Your task to perform on an android device: turn off data saver in the chrome app Image 0: 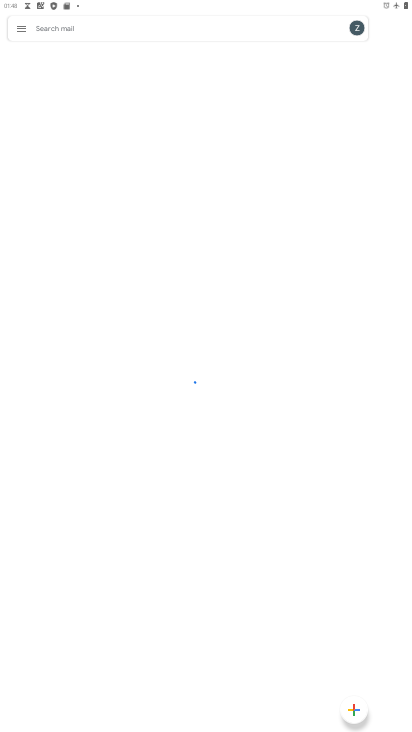
Step 0: press home button
Your task to perform on an android device: turn off data saver in the chrome app Image 1: 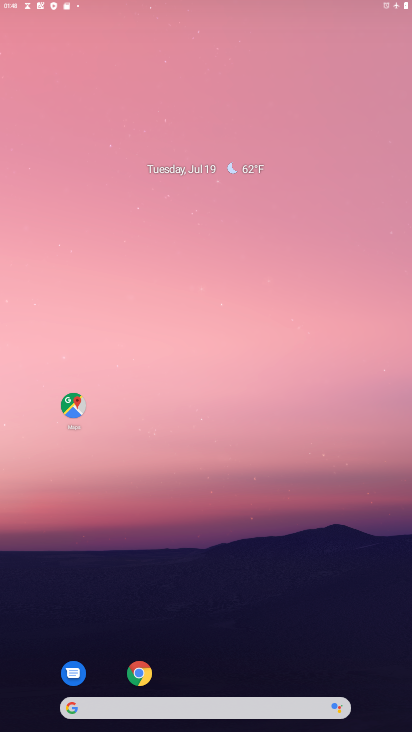
Step 1: drag from (132, 629) to (140, 169)
Your task to perform on an android device: turn off data saver in the chrome app Image 2: 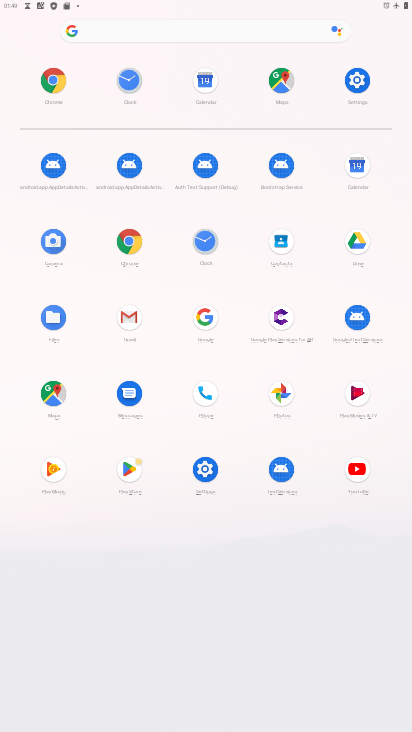
Step 2: click (46, 75)
Your task to perform on an android device: turn off data saver in the chrome app Image 3: 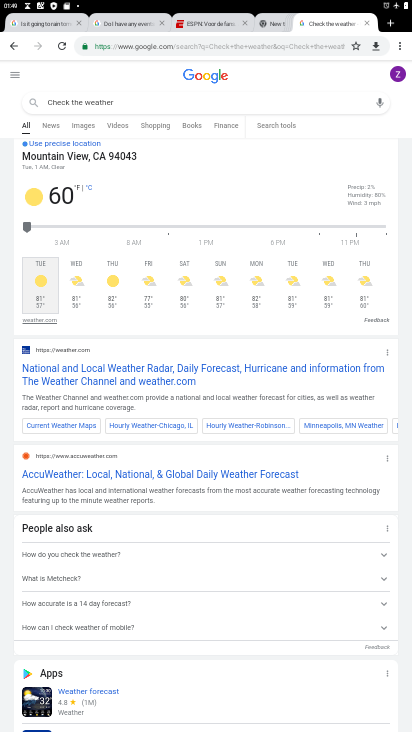
Step 3: click (394, 44)
Your task to perform on an android device: turn off data saver in the chrome app Image 4: 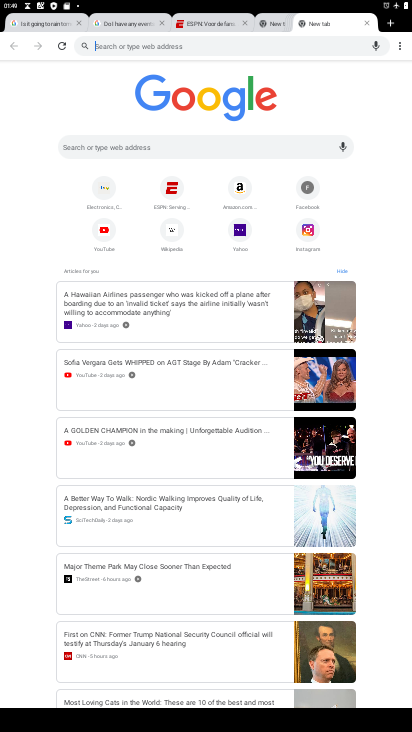
Step 4: click (395, 42)
Your task to perform on an android device: turn off data saver in the chrome app Image 5: 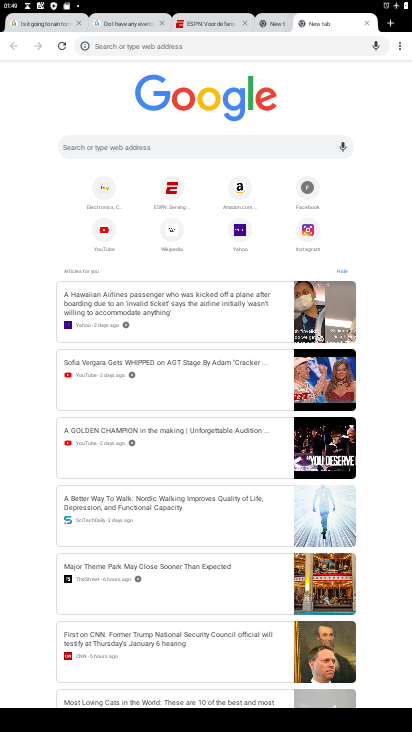
Step 5: click (402, 33)
Your task to perform on an android device: turn off data saver in the chrome app Image 6: 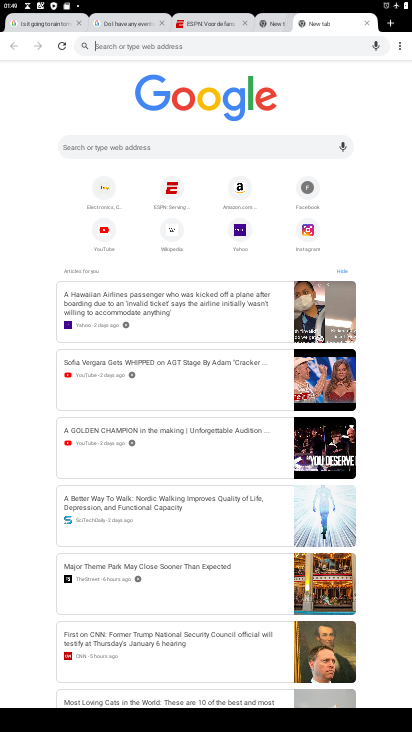
Step 6: click (403, 38)
Your task to perform on an android device: turn off data saver in the chrome app Image 7: 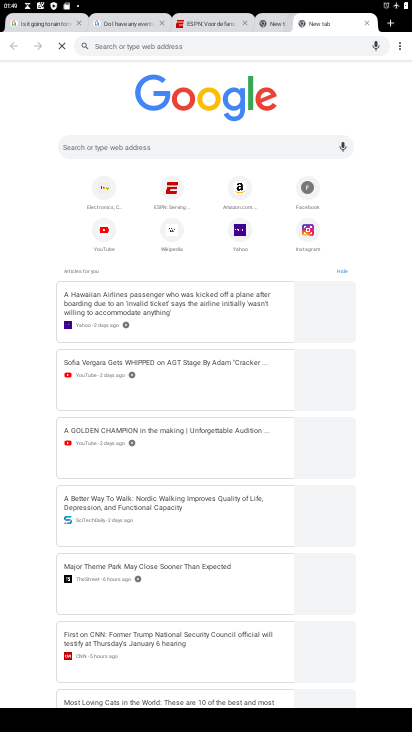
Step 7: click (403, 38)
Your task to perform on an android device: turn off data saver in the chrome app Image 8: 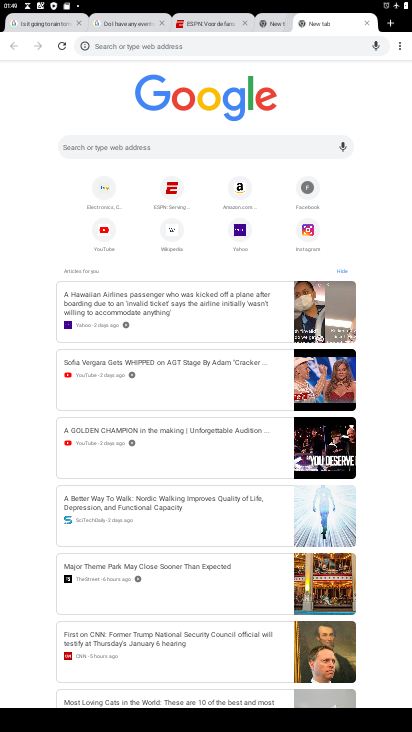
Step 8: click (401, 45)
Your task to perform on an android device: turn off data saver in the chrome app Image 9: 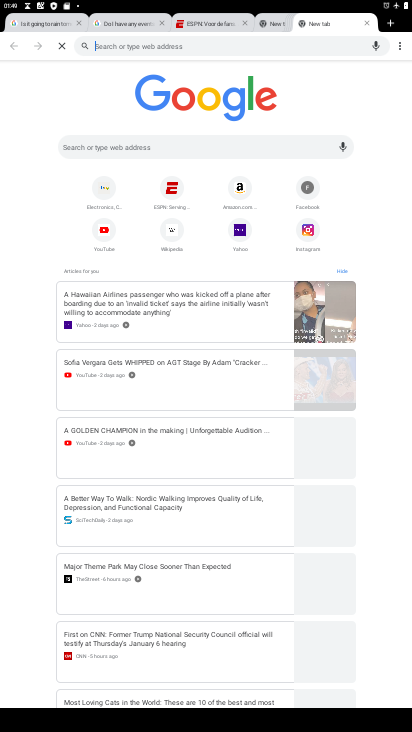
Step 9: click (401, 45)
Your task to perform on an android device: turn off data saver in the chrome app Image 10: 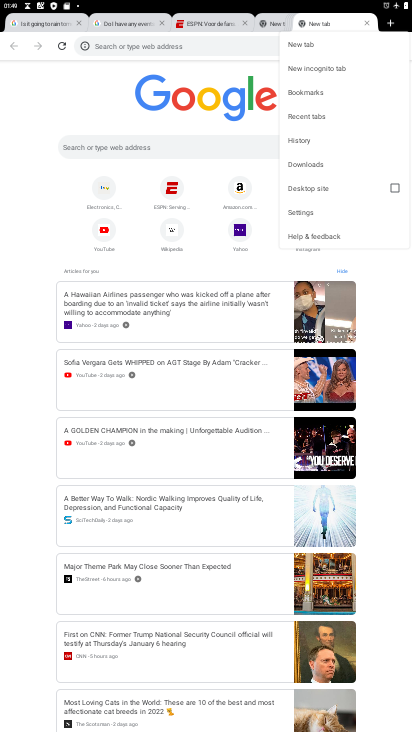
Step 10: click (300, 210)
Your task to perform on an android device: turn off data saver in the chrome app Image 11: 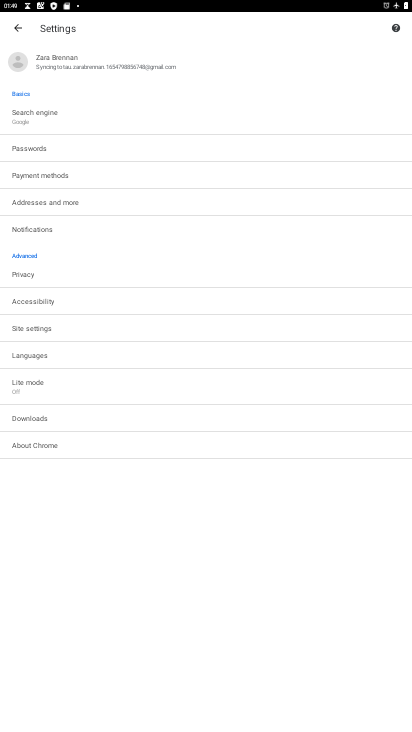
Step 11: click (101, 376)
Your task to perform on an android device: turn off data saver in the chrome app Image 12: 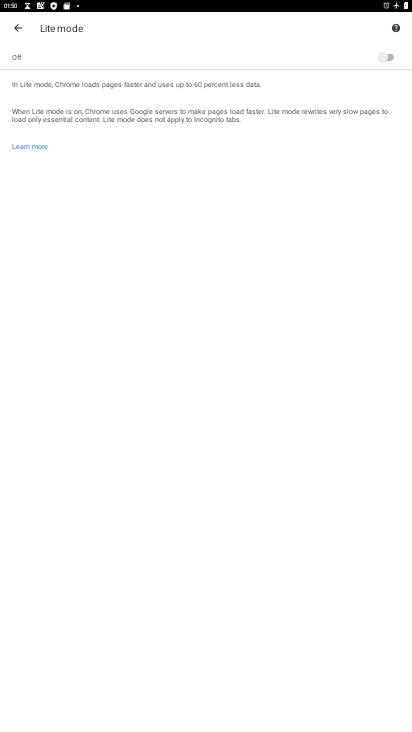
Step 12: task complete